Your task to perform on an android device: turn notification dots on Image 0: 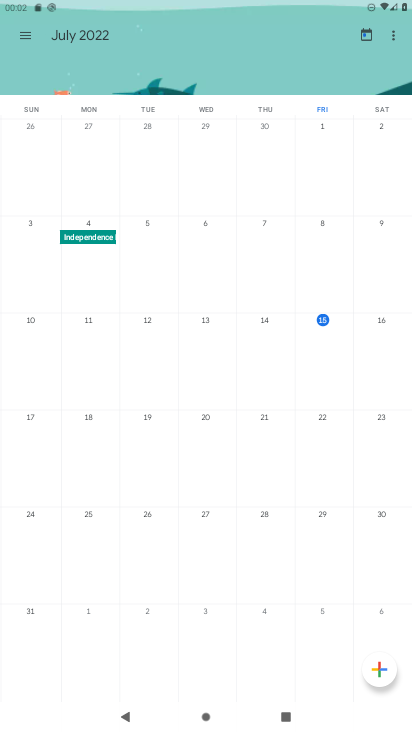
Step 0: press home button
Your task to perform on an android device: turn notification dots on Image 1: 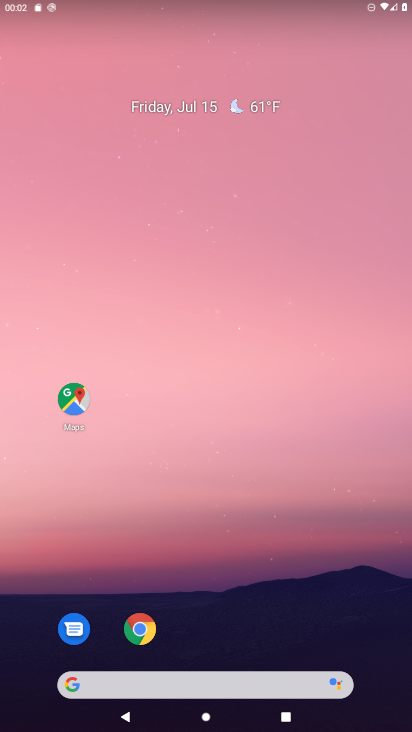
Step 1: drag from (193, 627) to (202, 113)
Your task to perform on an android device: turn notification dots on Image 2: 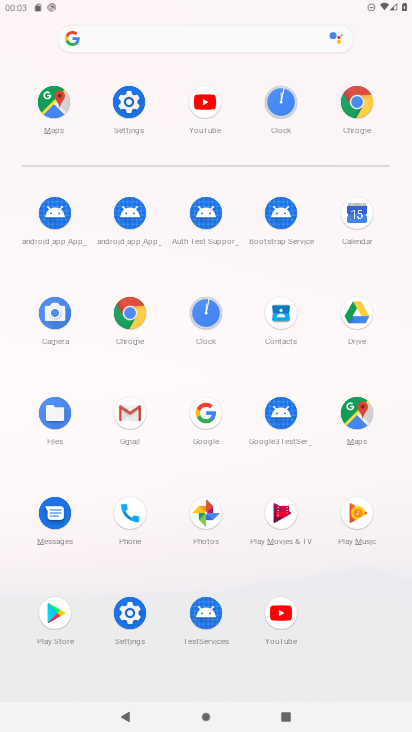
Step 2: click (139, 100)
Your task to perform on an android device: turn notification dots on Image 3: 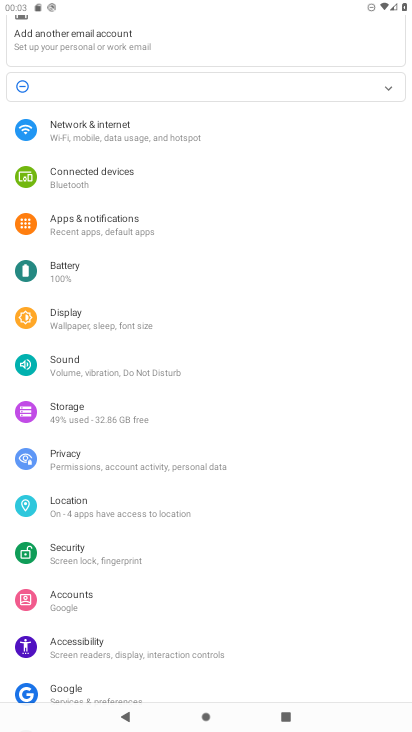
Step 3: click (127, 216)
Your task to perform on an android device: turn notification dots on Image 4: 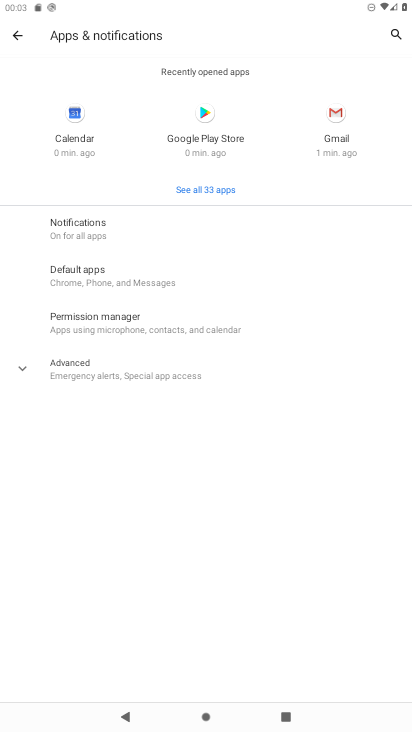
Step 4: click (111, 234)
Your task to perform on an android device: turn notification dots on Image 5: 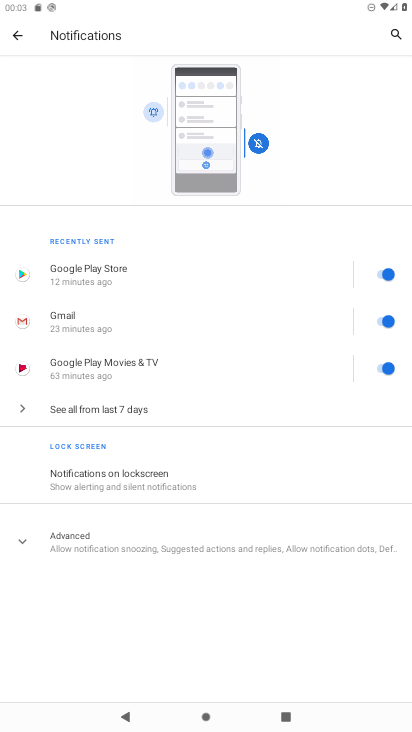
Step 5: click (201, 487)
Your task to perform on an android device: turn notification dots on Image 6: 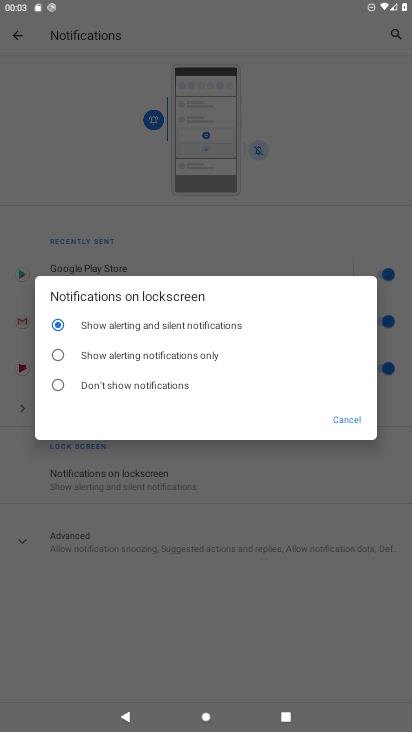
Step 6: click (351, 416)
Your task to perform on an android device: turn notification dots on Image 7: 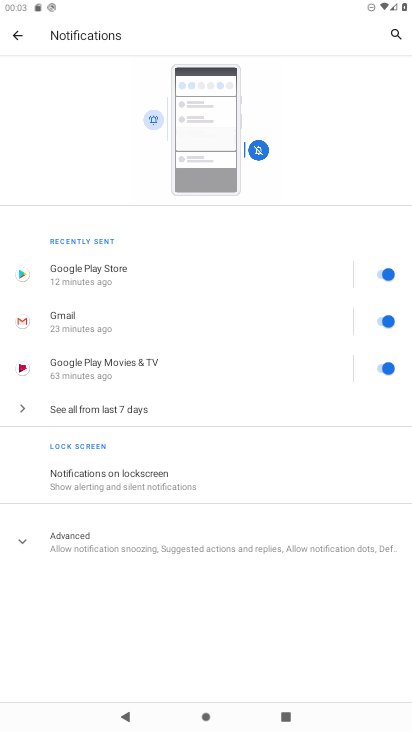
Step 7: click (124, 535)
Your task to perform on an android device: turn notification dots on Image 8: 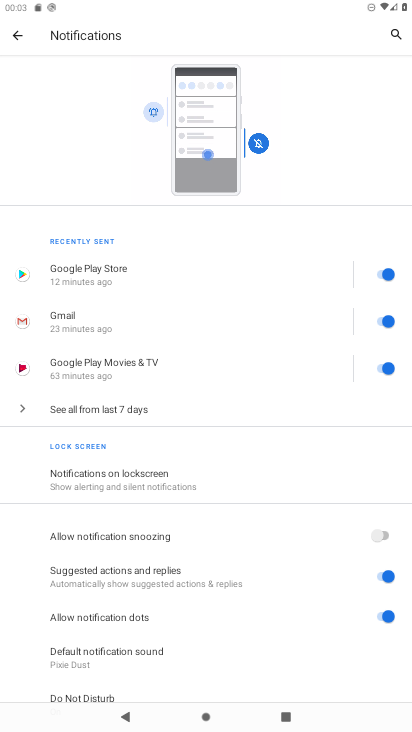
Step 8: task complete